Your task to perform on an android device: open app "Reddit" (install if not already installed) and go to login screen Image 0: 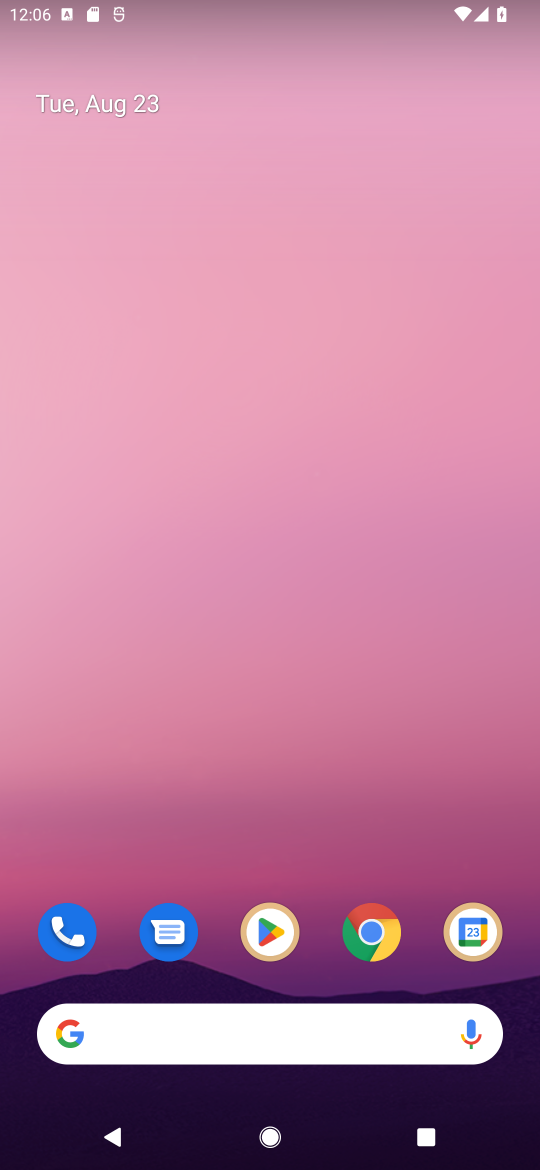
Step 0: click (268, 947)
Your task to perform on an android device: open app "Reddit" (install if not already installed) and go to login screen Image 1: 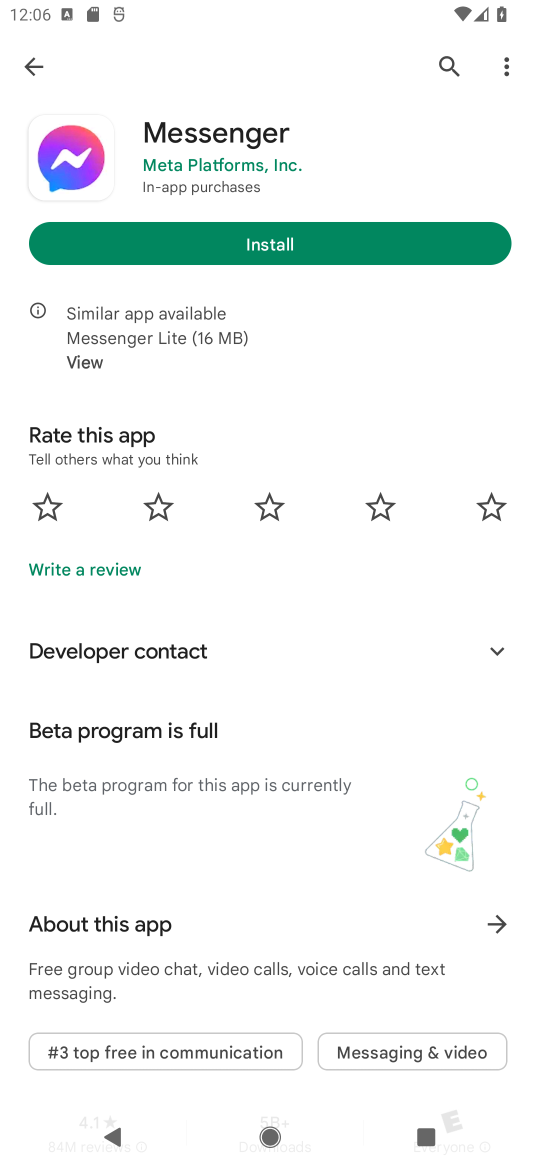
Step 1: click (447, 63)
Your task to perform on an android device: open app "Reddit" (install if not already installed) and go to login screen Image 2: 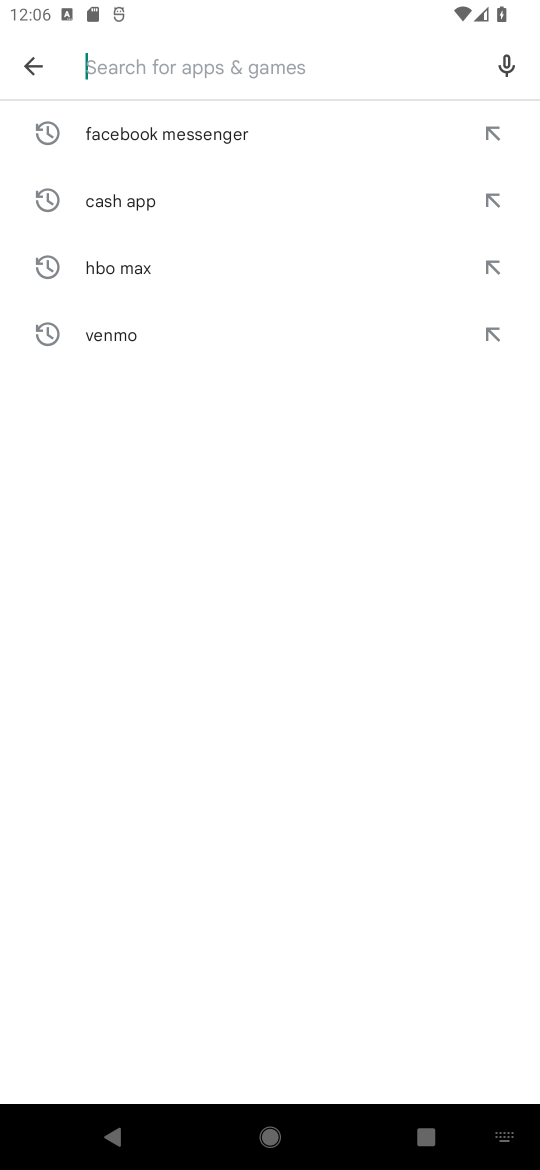
Step 2: click (193, 64)
Your task to perform on an android device: open app "Reddit" (install if not already installed) and go to login screen Image 3: 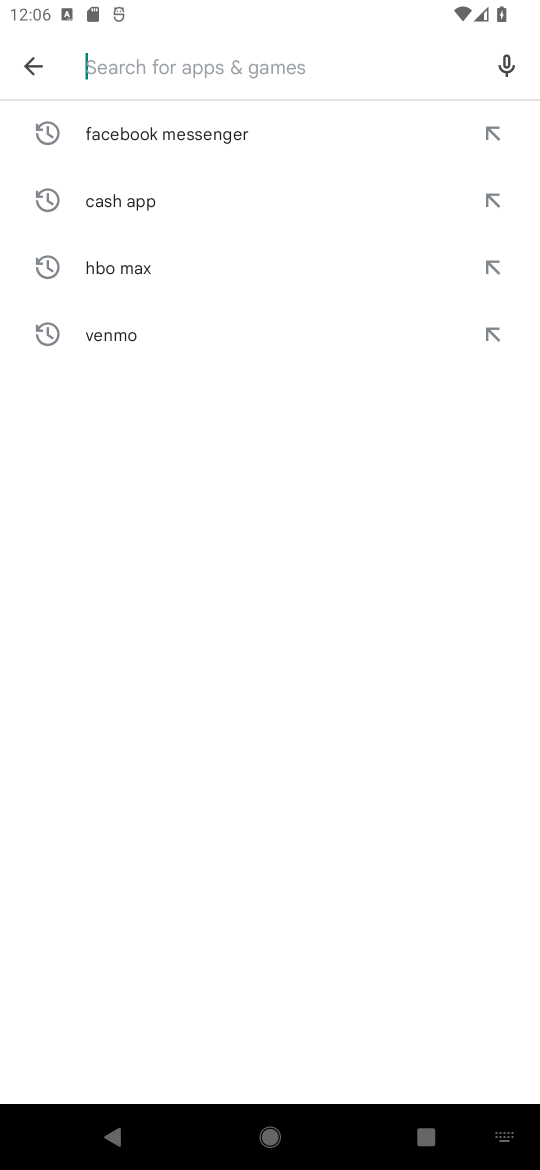
Step 3: type "Reddit"
Your task to perform on an android device: open app "Reddit" (install if not already installed) and go to login screen Image 4: 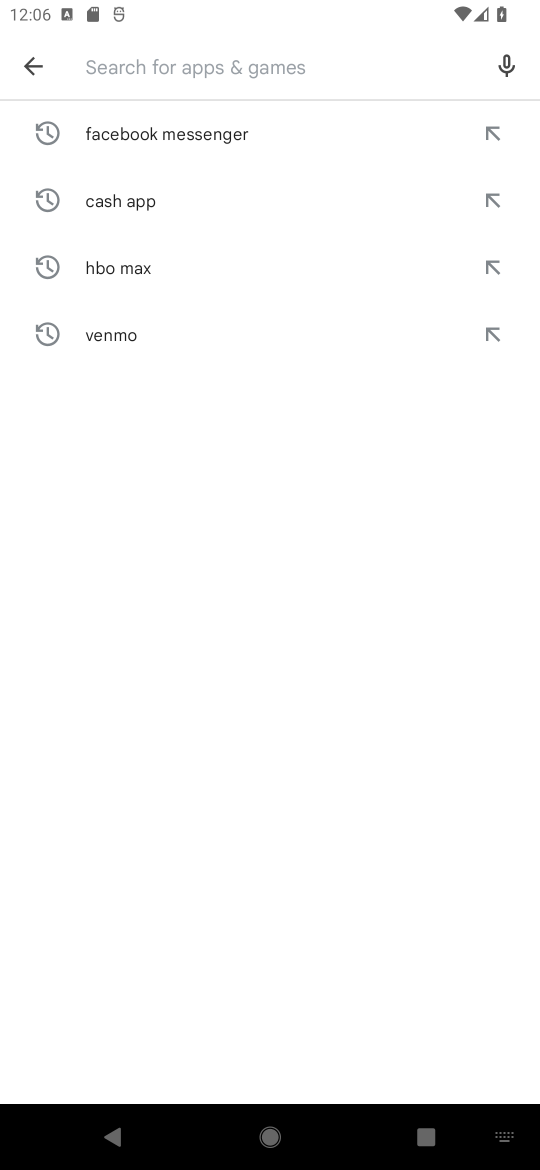
Step 4: click (314, 697)
Your task to perform on an android device: open app "Reddit" (install if not already installed) and go to login screen Image 5: 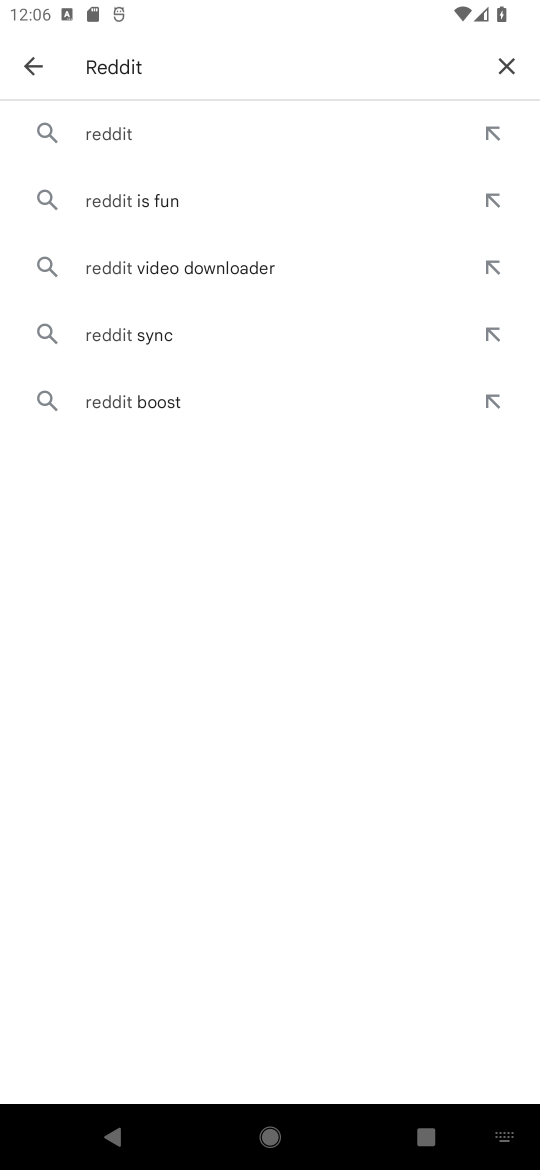
Step 5: click (96, 114)
Your task to perform on an android device: open app "Reddit" (install if not already installed) and go to login screen Image 6: 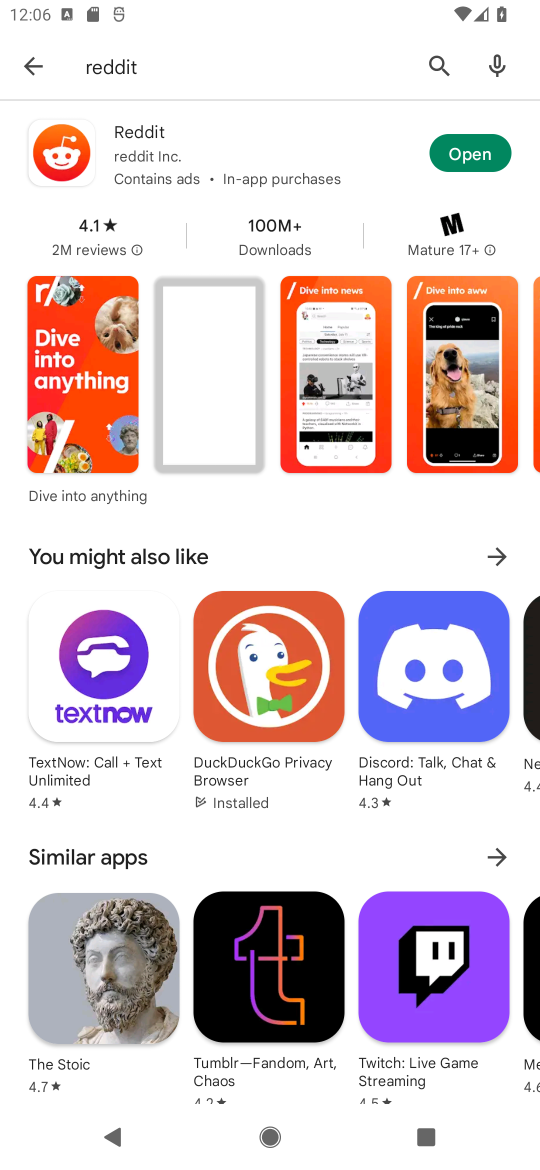
Step 6: click (466, 151)
Your task to perform on an android device: open app "Reddit" (install if not already installed) and go to login screen Image 7: 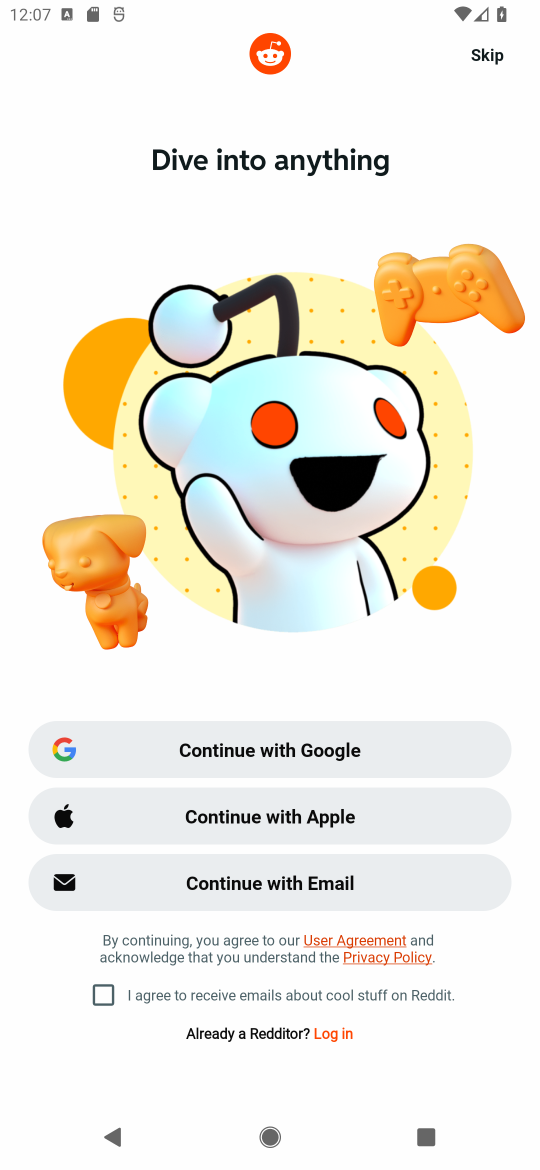
Step 7: click (335, 1035)
Your task to perform on an android device: open app "Reddit" (install if not already installed) and go to login screen Image 8: 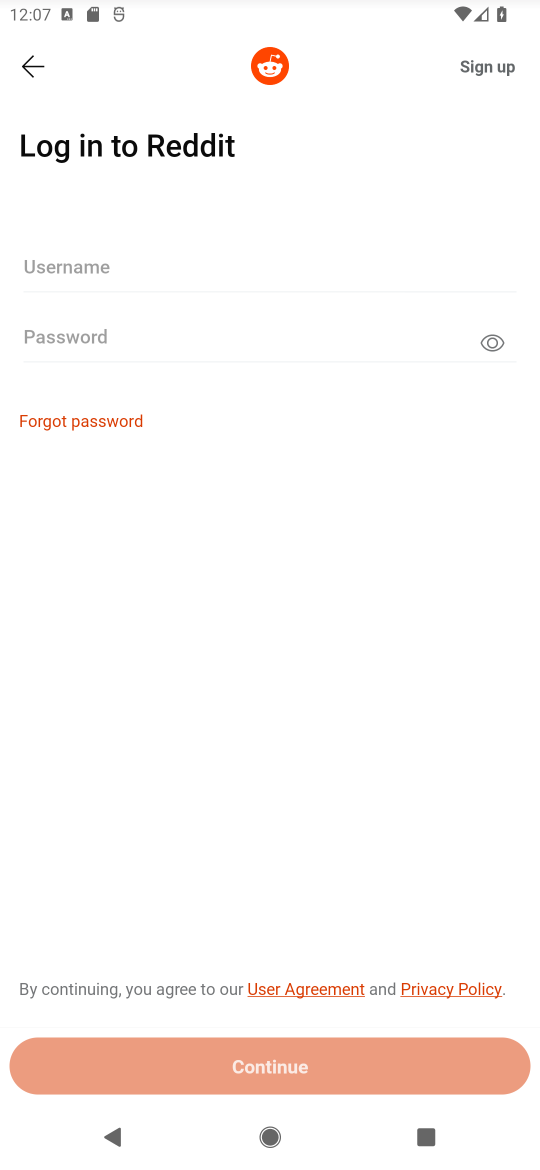
Step 8: task complete